Your task to perform on an android device: Is it going to rain today? Image 0: 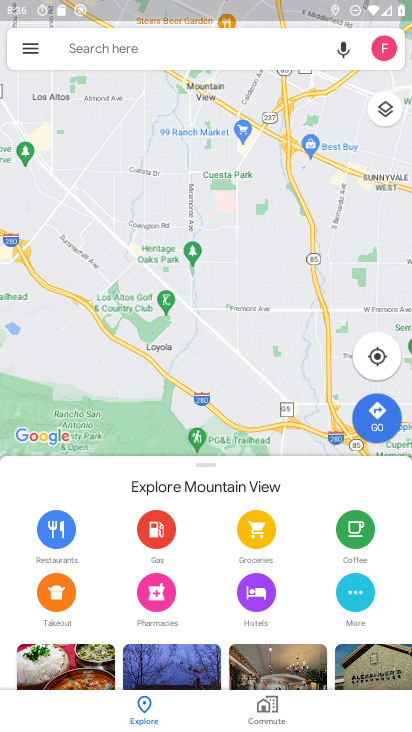
Step 0: press home button
Your task to perform on an android device: Is it going to rain today? Image 1: 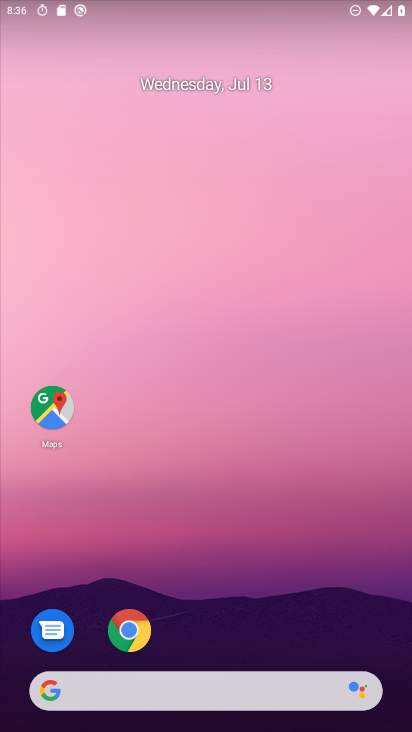
Step 1: drag from (399, 665) to (290, 55)
Your task to perform on an android device: Is it going to rain today? Image 2: 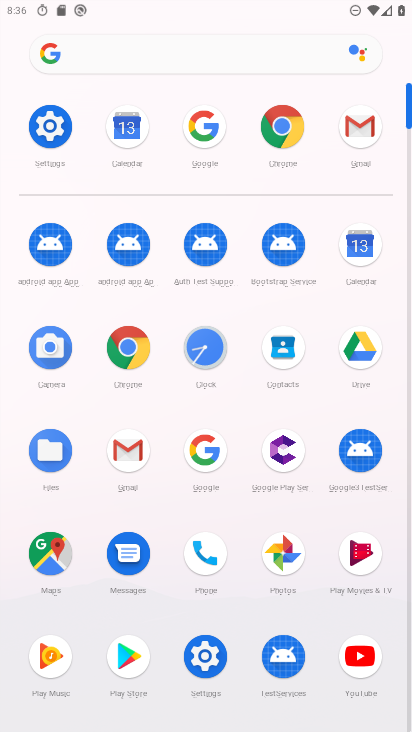
Step 2: click (202, 452)
Your task to perform on an android device: Is it going to rain today? Image 3: 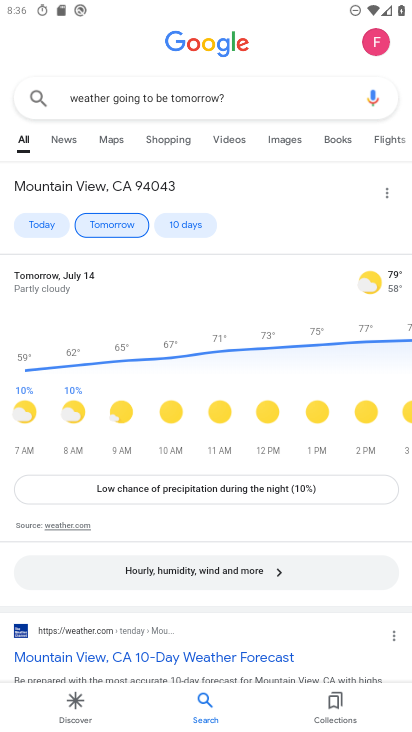
Step 3: press back button
Your task to perform on an android device: Is it going to rain today? Image 4: 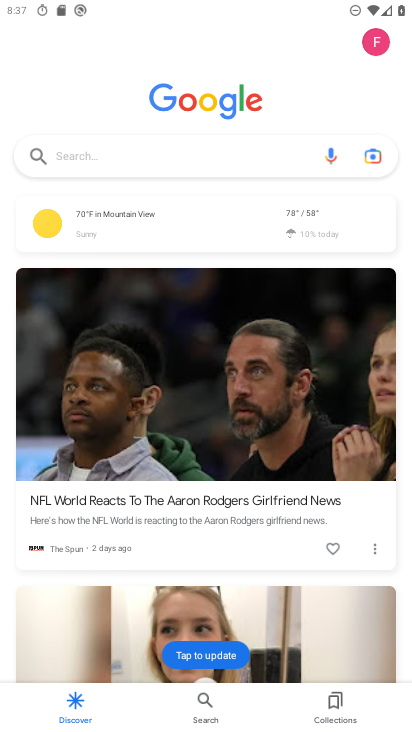
Step 4: click (113, 155)
Your task to perform on an android device: Is it going to rain today? Image 5: 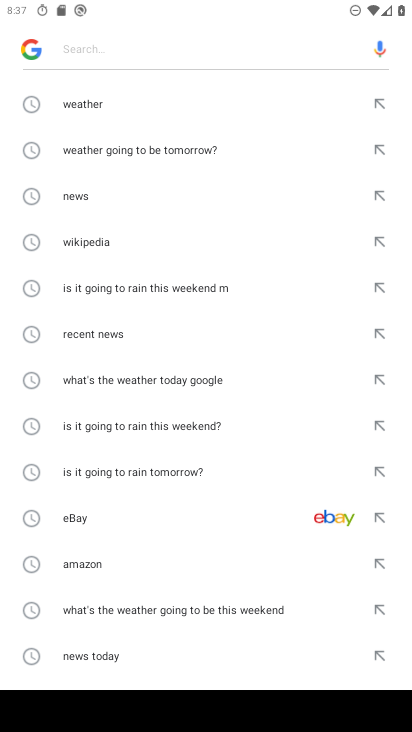
Step 5: type "Is it going to rain today?"
Your task to perform on an android device: Is it going to rain today? Image 6: 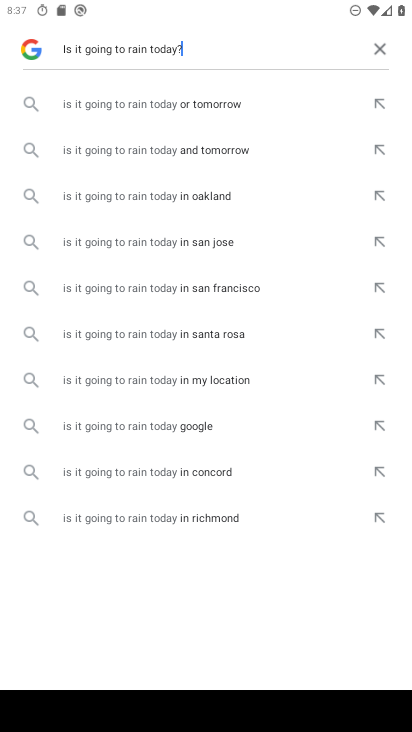
Step 6: click (165, 421)
Your task to perform on an android device: Is it going to rain today? Image 7: 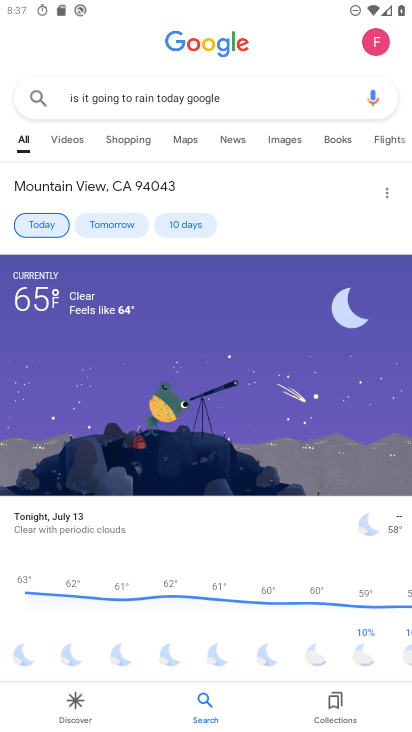
Step 7: task complete